Your task to perform on an android device: Go to sound settings Image 0: 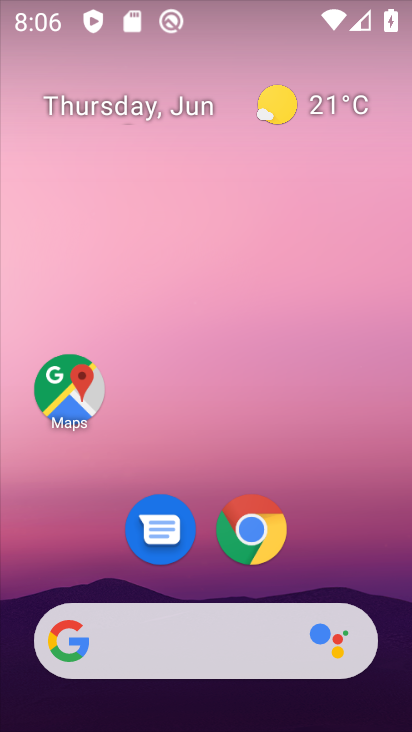
Step 0: drag from (336, 541) to (228, 63)
Your task to perform on an android device: Go to sound settings Image 1: 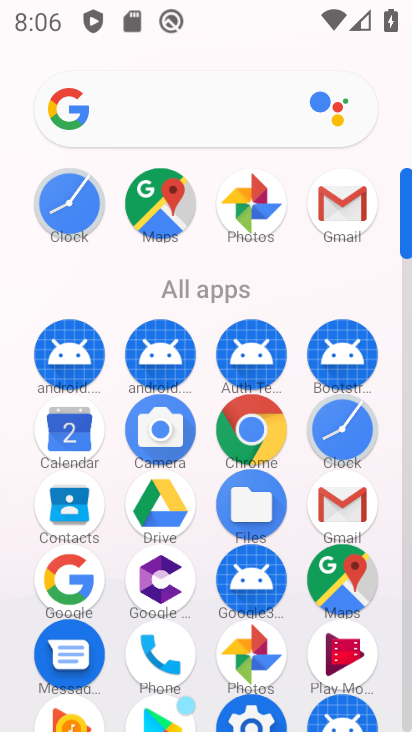
Step 1: drag from (214, 623) to (206, 207)
Your task to perform on an android device: Go to sound settings Image 2: 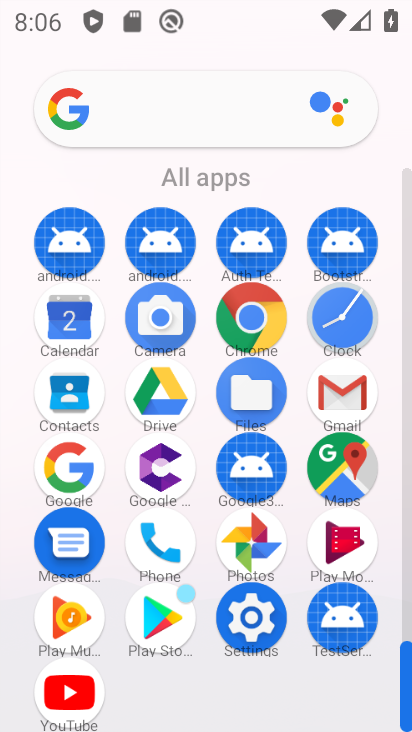
Step 2: click (249, 611)
Your task to perform on an android device: Go to sound settings Image 3: 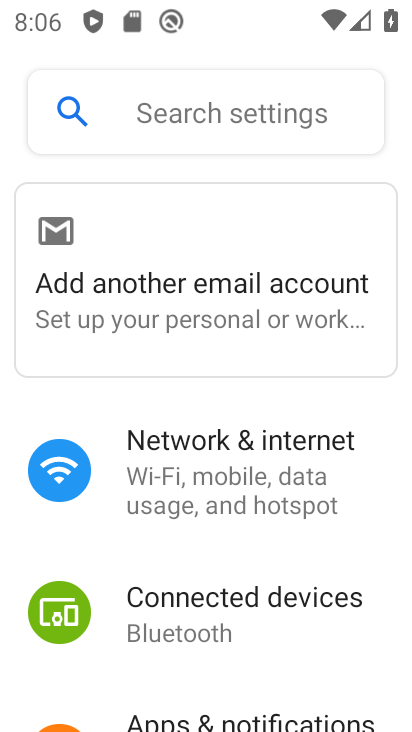
Step 3: drag from (242, 676) to (213, 364)
Your task to perform on an android device: Go to sound settings Image 4: 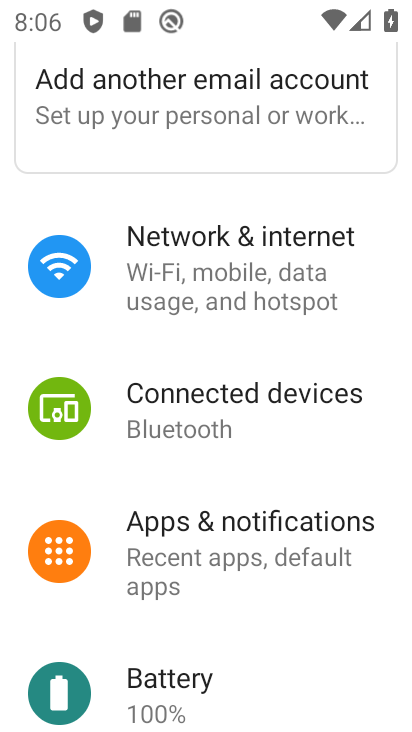
Step 4: drag from (237, 644) to (214, 320)
Your task to perform on an android device: Go to sound settings Image 5: 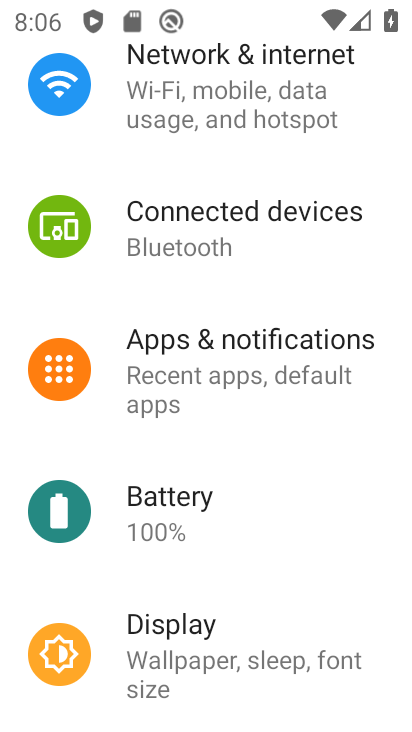
Step 5: drag from (234, 568) to (212, 151)
Your task to perform on an android device: Go to sound settings Image 6: 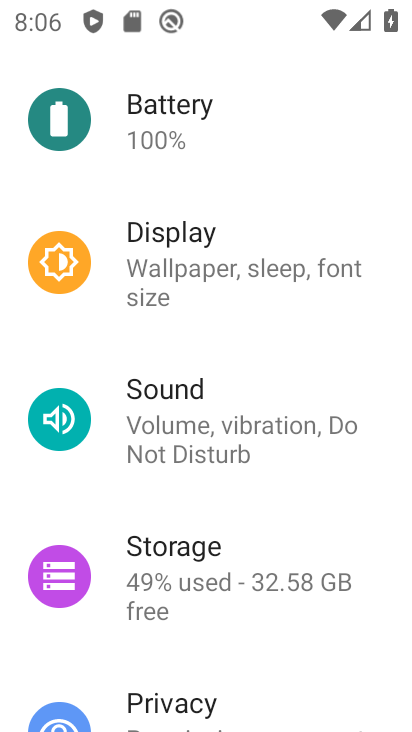
Step 6: click (162, 396)
Your task to perform on an android device: Go to sound settings Image 7: 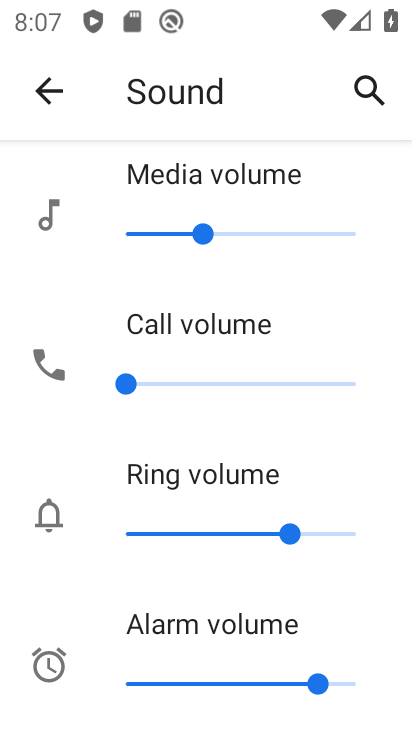
Step 7: task complete